Your task to perform on an android device: Open the phone app and click the voicemail tab. Image 0: 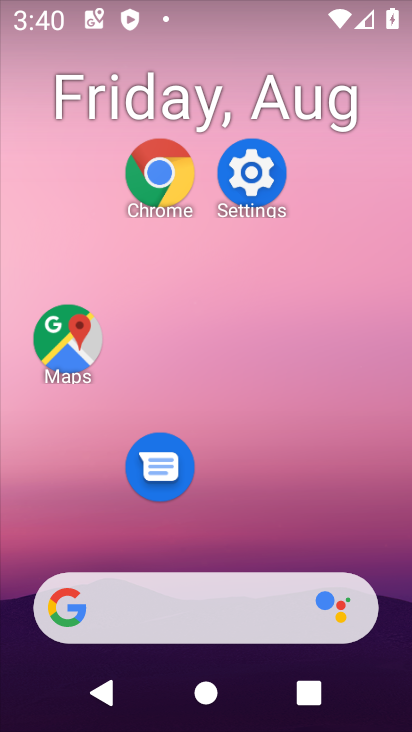
Step 0: drag from (269, 531) to (308, 24)
Your task to perform on an android device: Open the phone app and click the voicemail tab. Image 1: 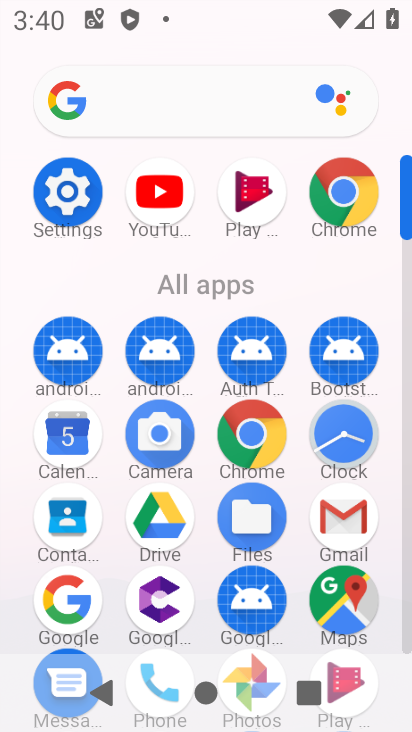
Step 1: drag from (200, 499) to (175, 125)
Your task to perform on an android device: Open the phone app and click the voicemail tab. Image 2: 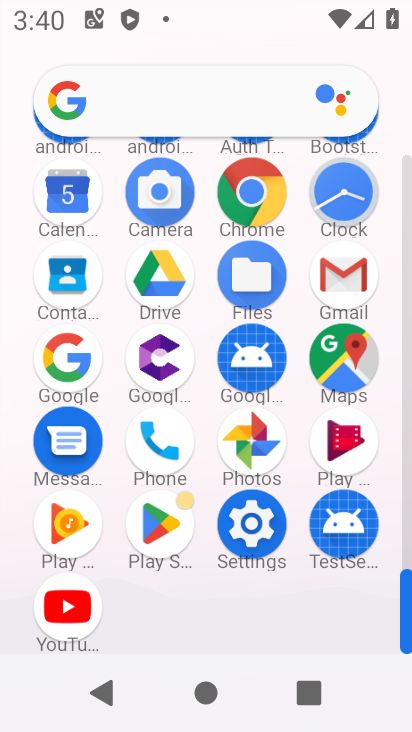
Step 2: click (147, 446)
Your task to perform on an android device: Open the phone app and click the voicemail tab. Image 3: 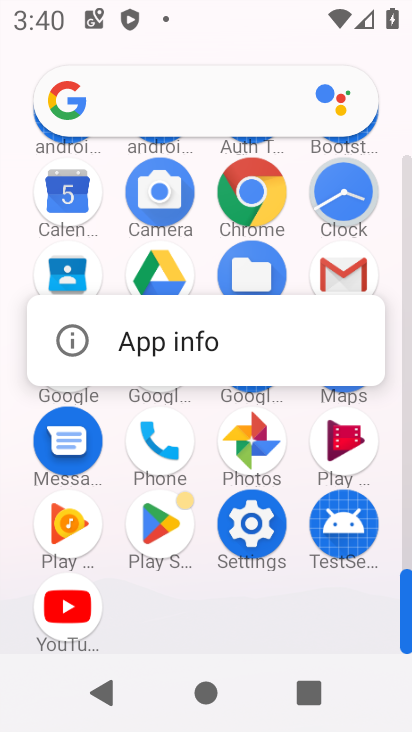
Step 3: click (150, 447)
Your task to perform on an android device: Open the phone app and click the voicemail tab. Image 4: 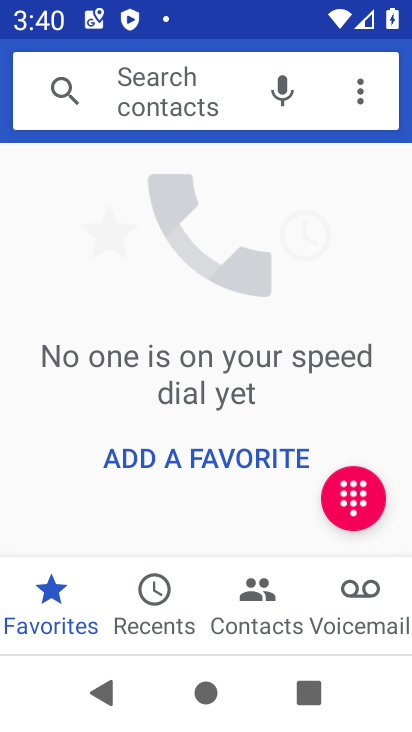
Step 4: click (371, 588)
Your task to perform on an android device: Open the phone app and click the voicemail tab. Image 5: 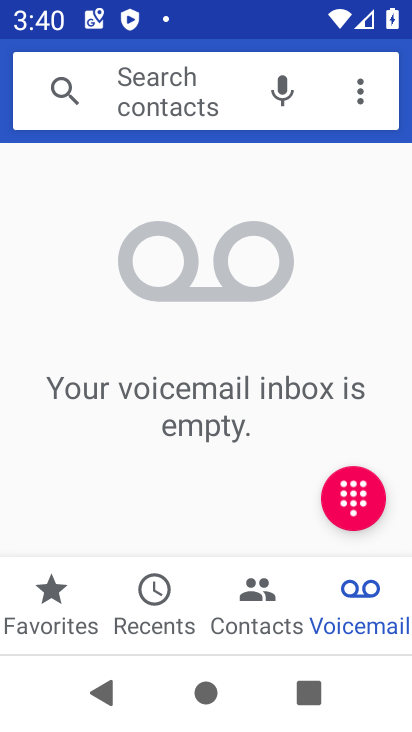
Step 5: task complete